Your task to perform on an android device: change notification settings in the gmail app Image 0: 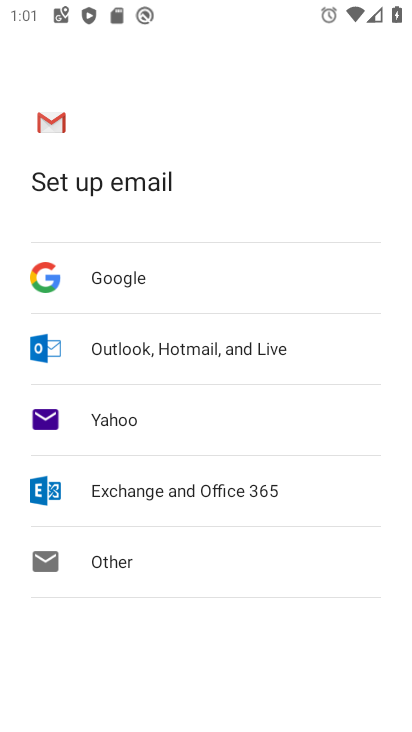
Step 0: press home button
Your task to perform on an android device: change notification settings in the gmail app Image 1: 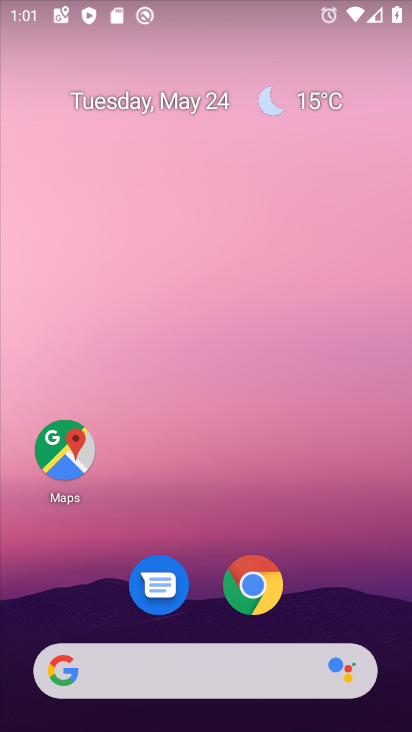
Step 1: drag from (216, 491) to (282, 32)
Your task to perform on an android device: change notification settings in the gmail app Image 2: 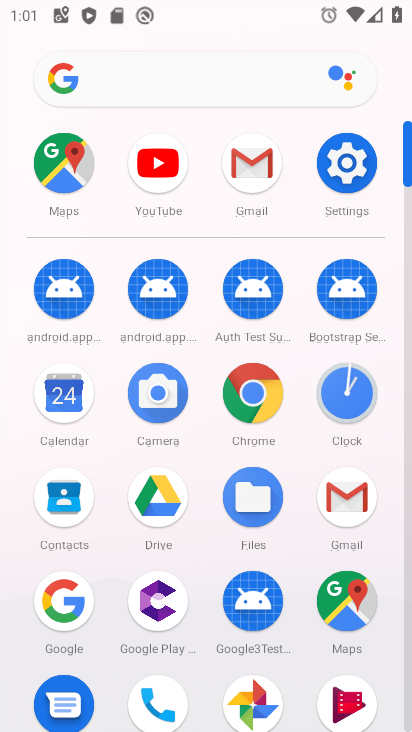
Step 2: click (259, 151)
Your task to perform on an android device: change notification settings in the gmail app Image 3: 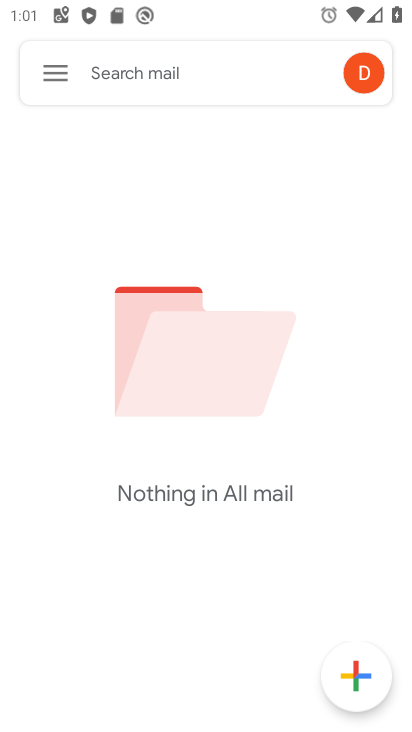
Step 3: click (59, 76)
Your task to perform on an android device: change notification settings in the gmail app Image 4: 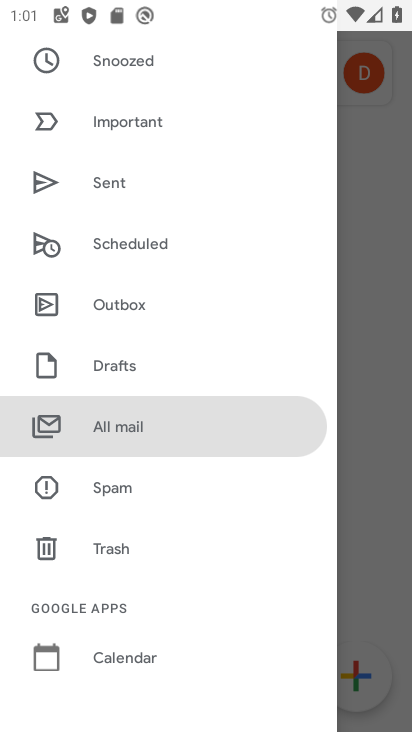
Step 4: drag from (146, 552) to (158, 270)
Your task to perform on an android device: change notification settings in the gmail app Image 5: 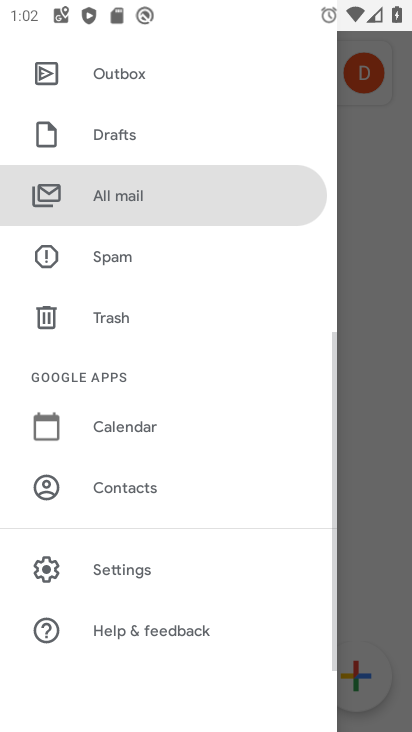
Step 5: click (134, 561)
Your task to perform on an android device: change notification settings in the gmail app Image 6: 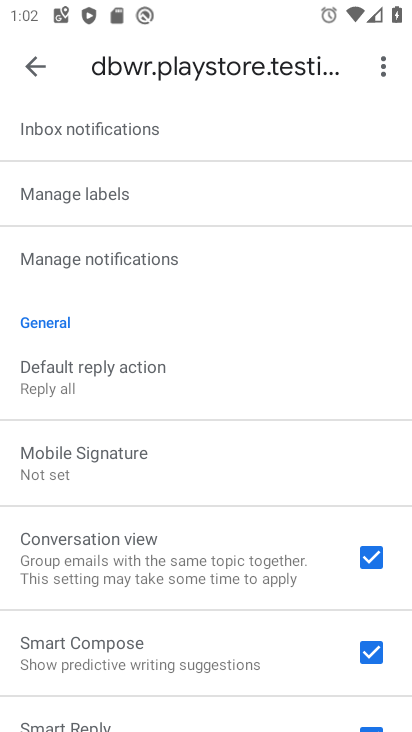
Step 6: click (213, 258)
Your task to perform on an android device: change notification settings in the gmail app Image 7: 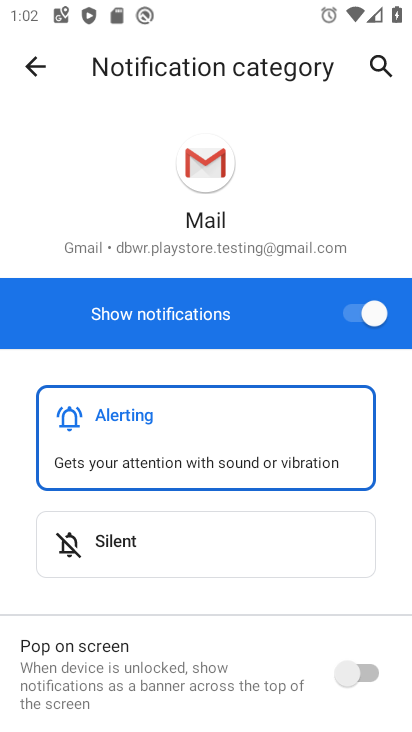
Step 7: click (351, 311)
Your task to perform on an android device: change notification settings in the gmail app Image 8: 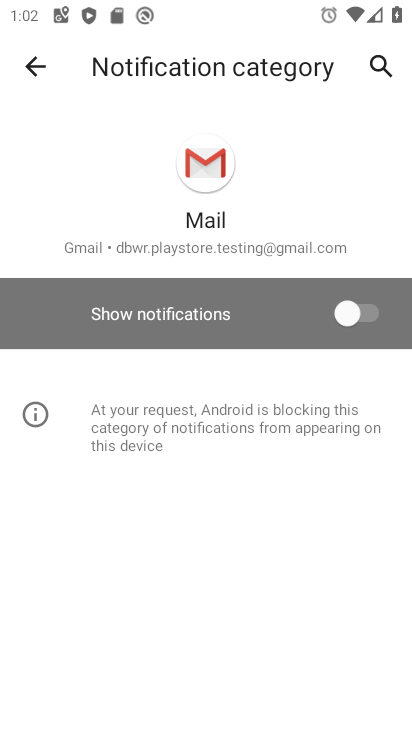
Step 8: task complete